Your task to perform on an android device: turn off notifications settings in the gmail app Image 0: 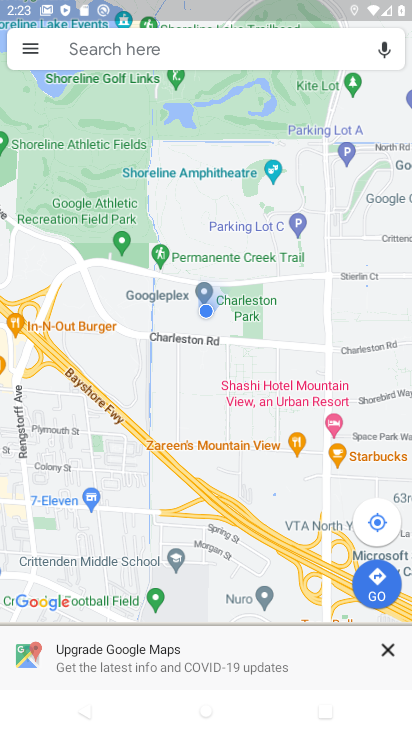
Step 0: press home button
Your task to perform on an android device: turn off notifications settings in the gmail app Image 1: 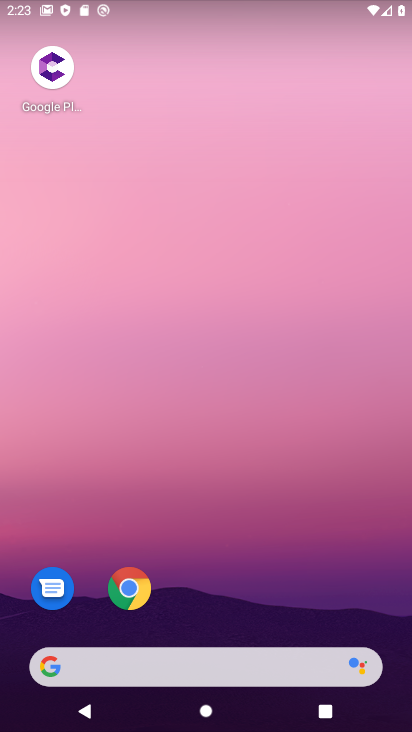
Step 1: drag from (193, 256) to (193, 119)
Your task to perform on an android device: turn off notifications settings in the gmail app Image 2: 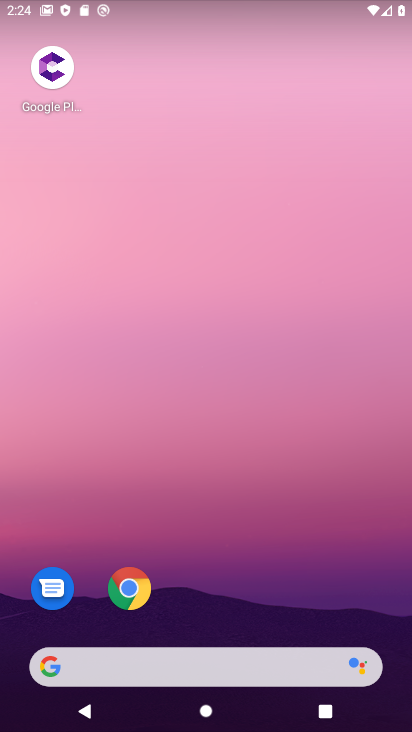
Step 2: drag from (197, 594) to (237, 28)
Your task to perform on an android device: turn off notifications settings in the gmail app Image 3: 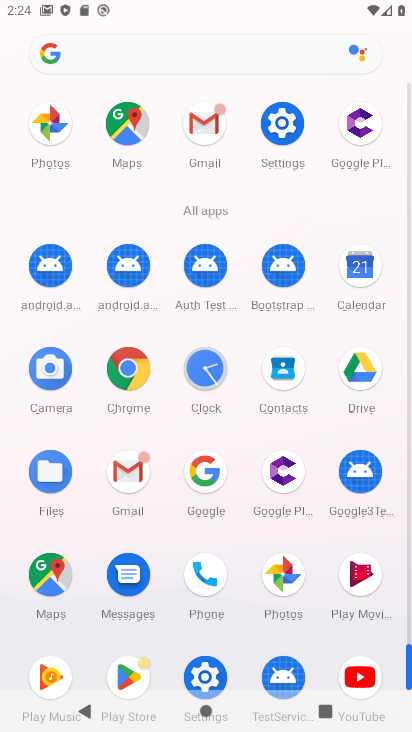
Step 3: click (132, 480)
Your task to perform on an android device: turn off notifications settings in the gmail app Image 4: 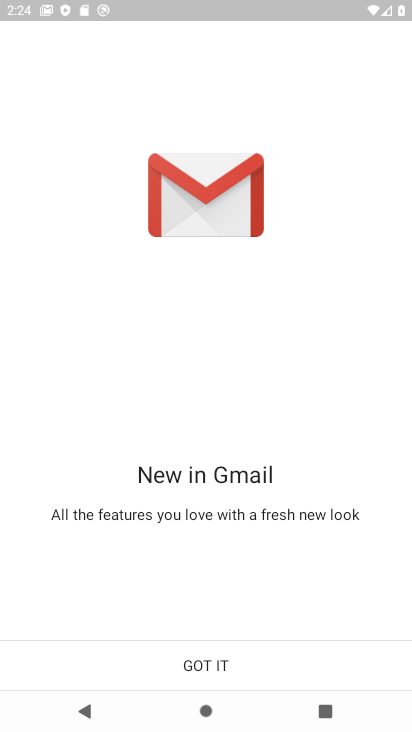
Step 4: click (191, 653)
Your task to perform on an android device: turn off notifications settings in the gmail app Image 5: 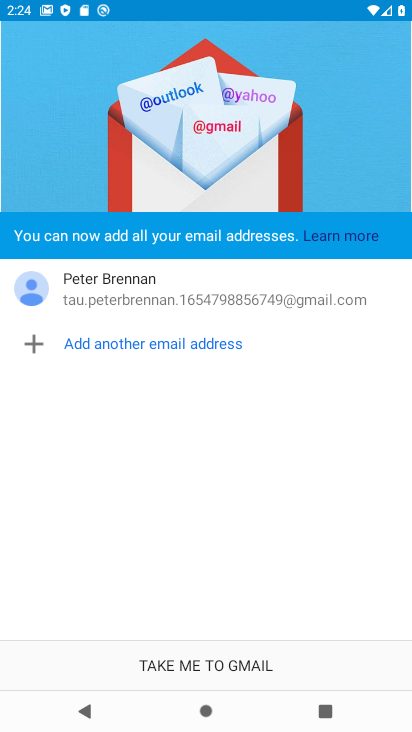
Step 5: click (209, 663)
Your task to perform on an android device: turn off notifications settings in the gmail app Image 6: 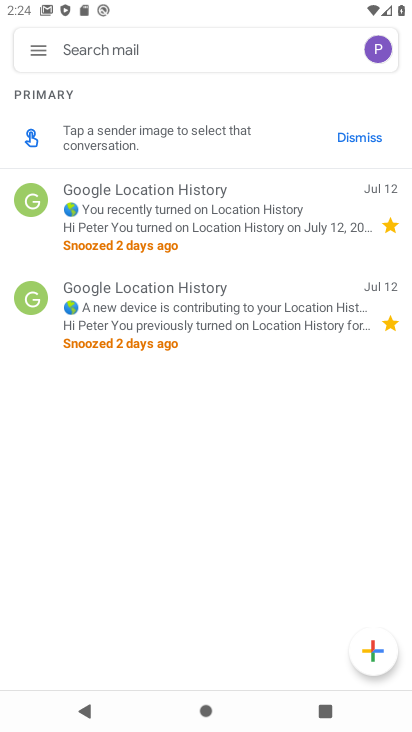
Step 6: click (23, 57)
Your task to perform on an android device: turn off notifications settings in the gmail app Image 7: 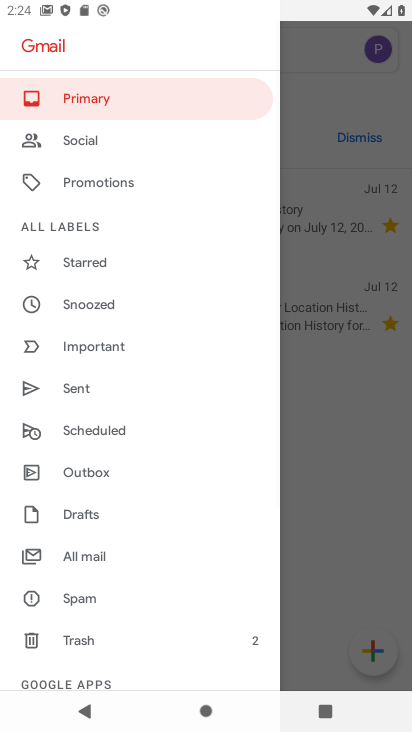
Step 7: drag from (93, 546) to (101, 197)
Your task to perform on an android device: turn off notifications settings in the gmail app Image 8: 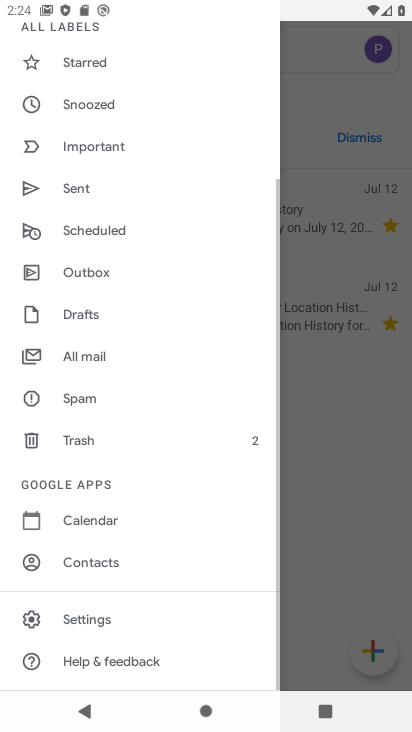
Step 8: click (114, 623)
Your task to perform on an android device: turn off notifications settings in the gmail app Image 9: 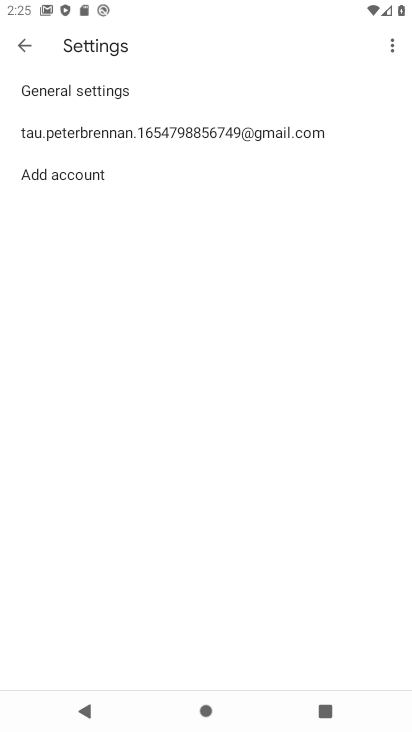
Step 9: click (82, 92)
Your task to perform on an android device: turn off notifications settings in the gmail app Image 10: 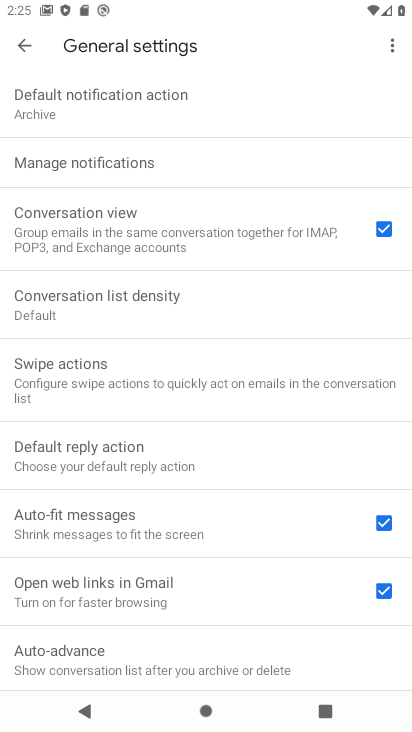
Step 10: click (121, 160)
Your task to perform on an android device: turn off notifications settings in the gmail app Image 11: 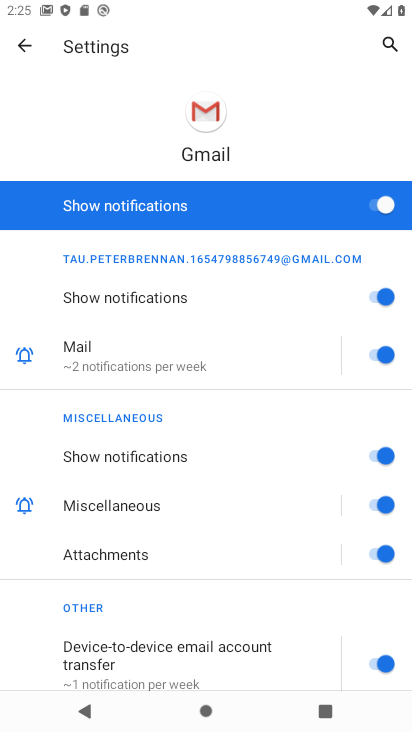
Step 11: click (374, 207)
Your task to perform on an android device: turn off notifications settings in the gmail app Image 12: 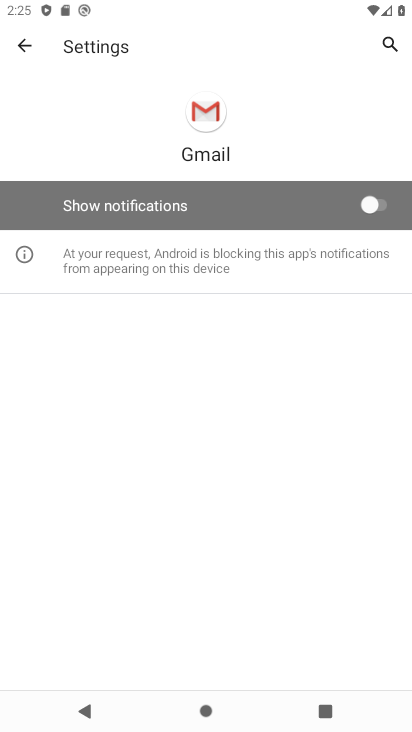
Step 12: task complete